Your task to perform on an android device: Go to Yahoo.com Image 0: 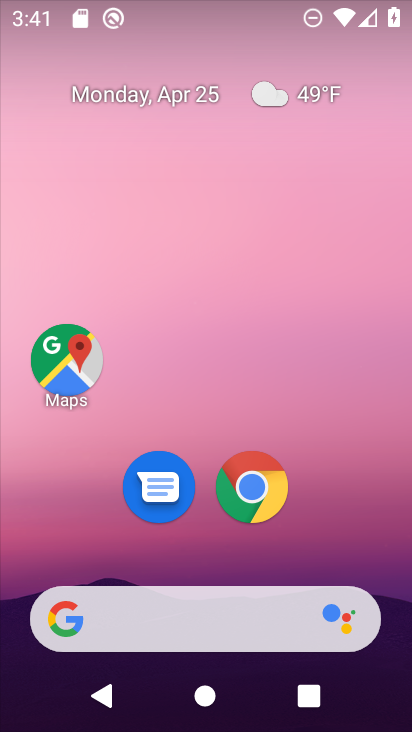
Step 0: click (243, 497)
Your task to perform on an android device: Go to Yahoo.com Image 1: 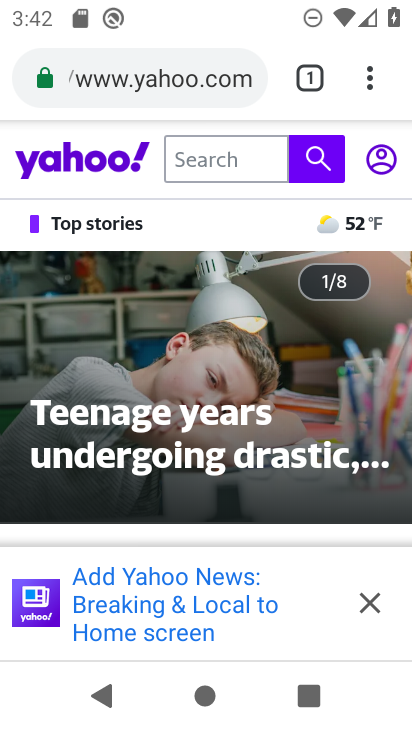
Step 1: task complete